Your task to perform on an android device: search for starred emails in the gmail app Image 0: 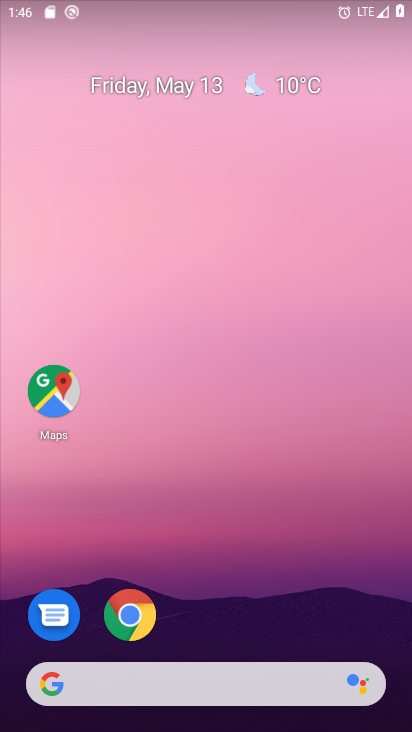
Step 0: drag from (313, 603) to (281, 32)
Your task to perform on an android device: search for starred emails in the gmail app Image 1: 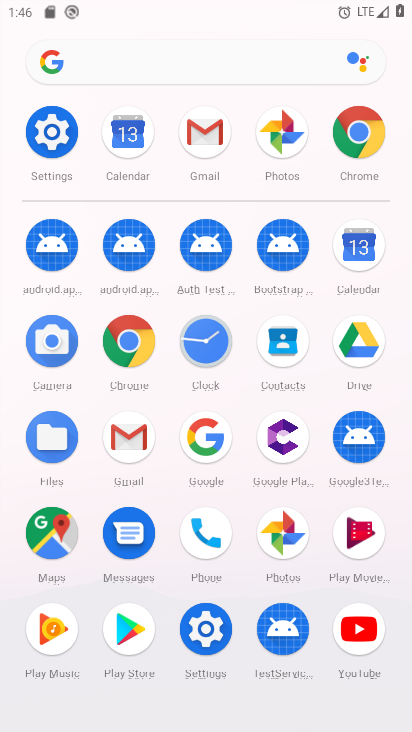
Step 1: click (208, 125)
Your task to perform on an android device: search for starred emails in the gmail app Image 2: 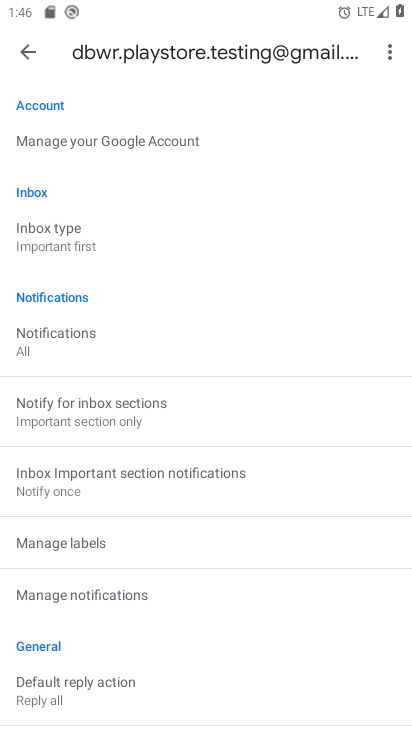
Step 2: click (29, 48)
Your task to perform on an android device: search for starred emails in the gmail app Image 3: 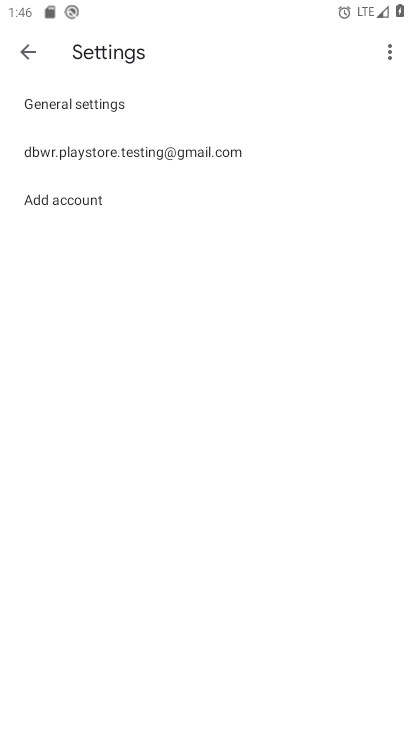
Step 3: click (29, 49)
Your task to perform on an android device: search for starred emails in the gmail app Image 4: 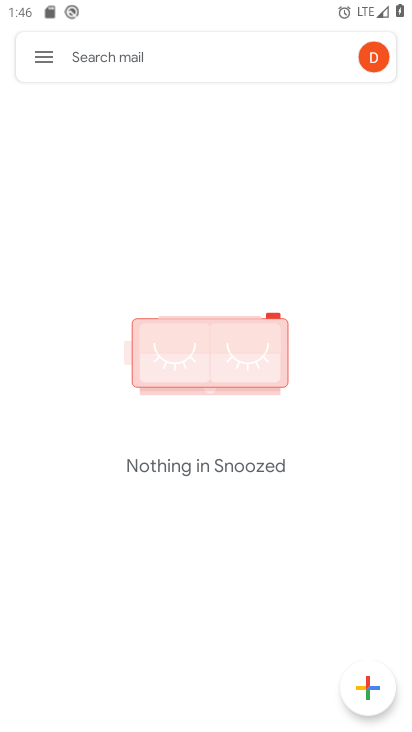
Step 4: click (48, 59)
Your task to perform on an android device: search for starred emails in the gmail app Image 5: 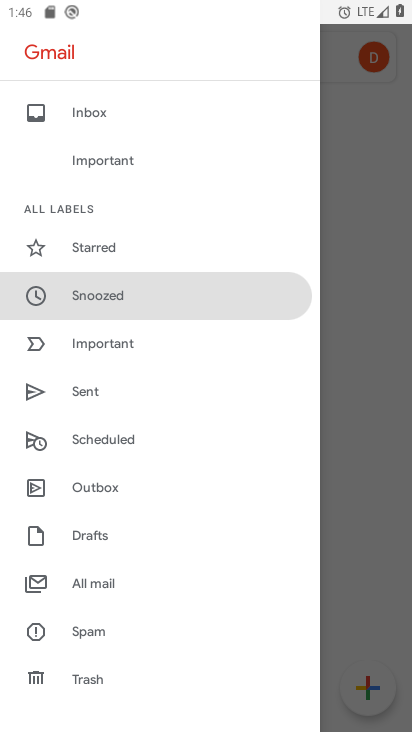
Step 5: click (132, 250)
Your task to perform on an android device: search for starred emails in the gmail app Image 6: 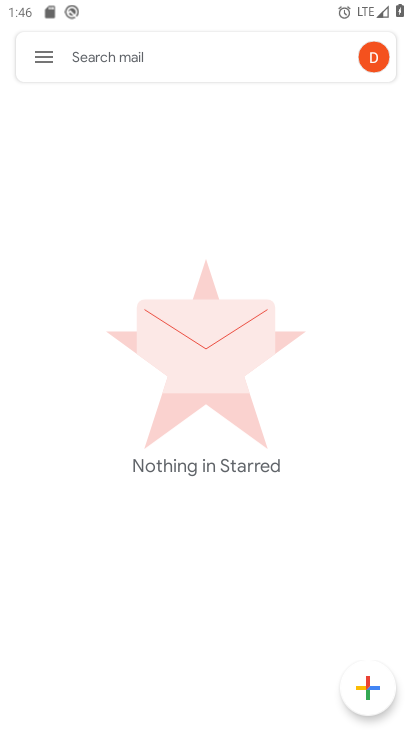
Step 6: task complete